Your task to perform on an android device: Open Amazon Image 0: 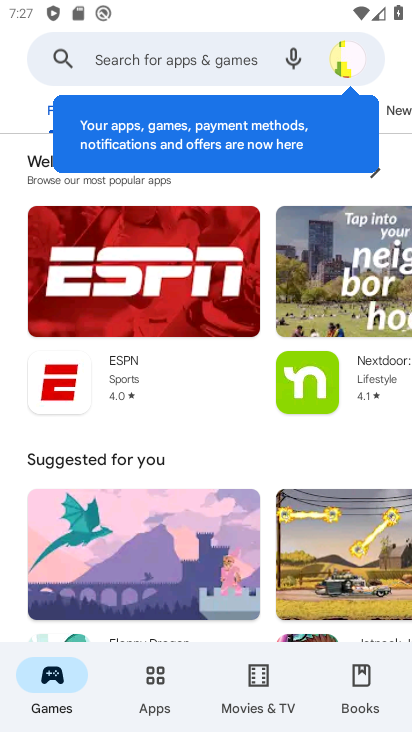
Step 0: press back button
Your task to perform on an android device: Open Amazon Image 1: 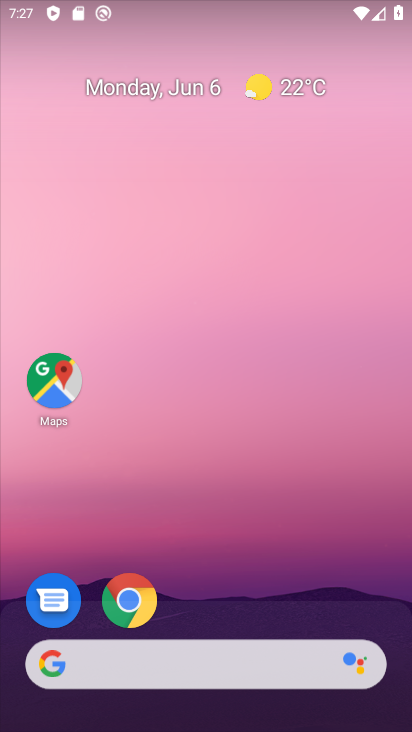
Step 1: click (131, 599)
Your task to perform on an android device: Open Amazon Image 2: 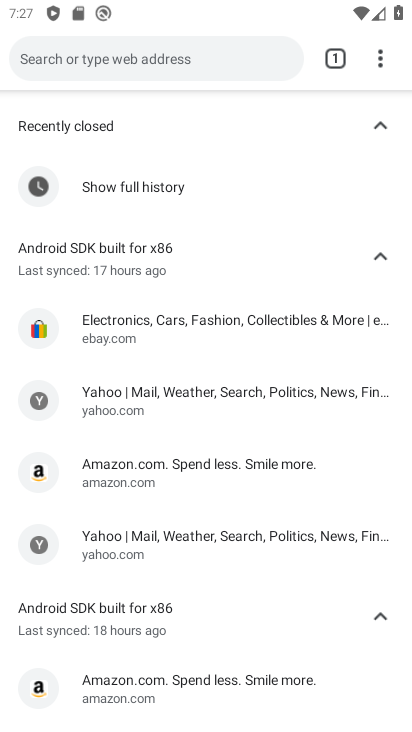
Step 2: click (189, 62)
Your task to perform on an android device: Open Amazon Image 3: 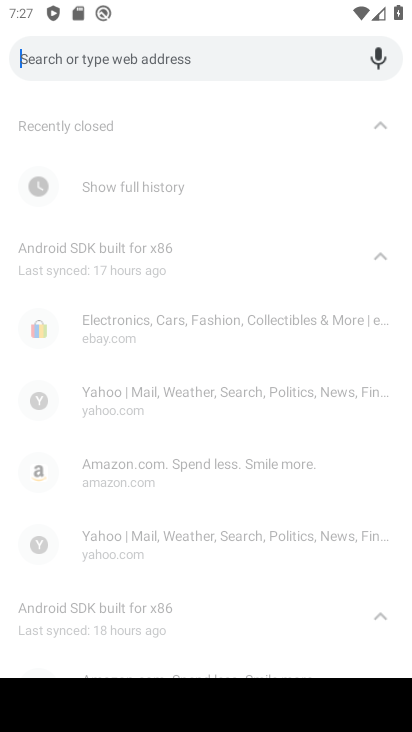
Step 3: type "Amazon"
Your task to perform on an android device: Open Amazon Image 4: 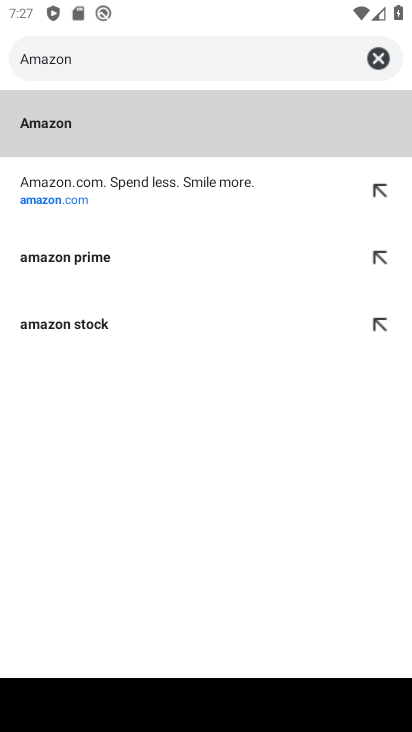
Step 4: click (99, 132)
Your task to perform on an android device: Open Amazon Image 5: 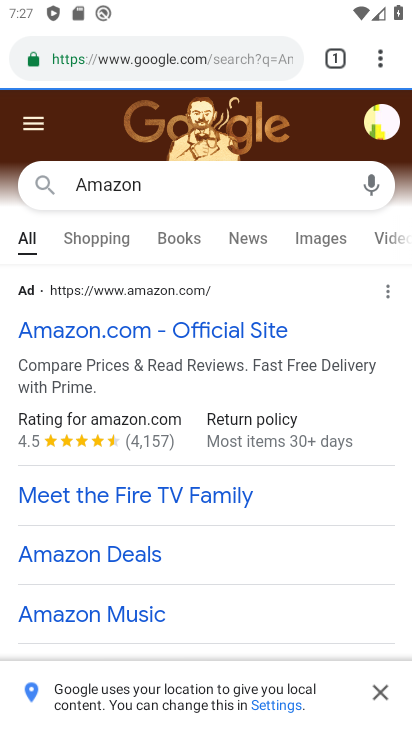
Step 5: click (101, 333)
Your task to perform on an android device: Open Amazon Image 6: 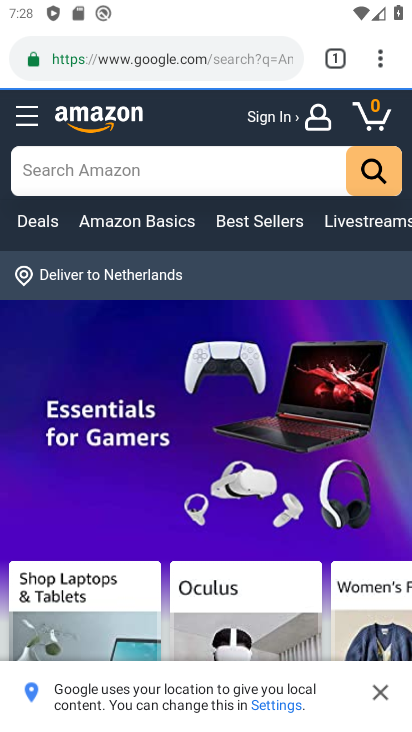
Step 6: task complete